Your task to perform on an android device: uninstall "Contacts" Image 0: 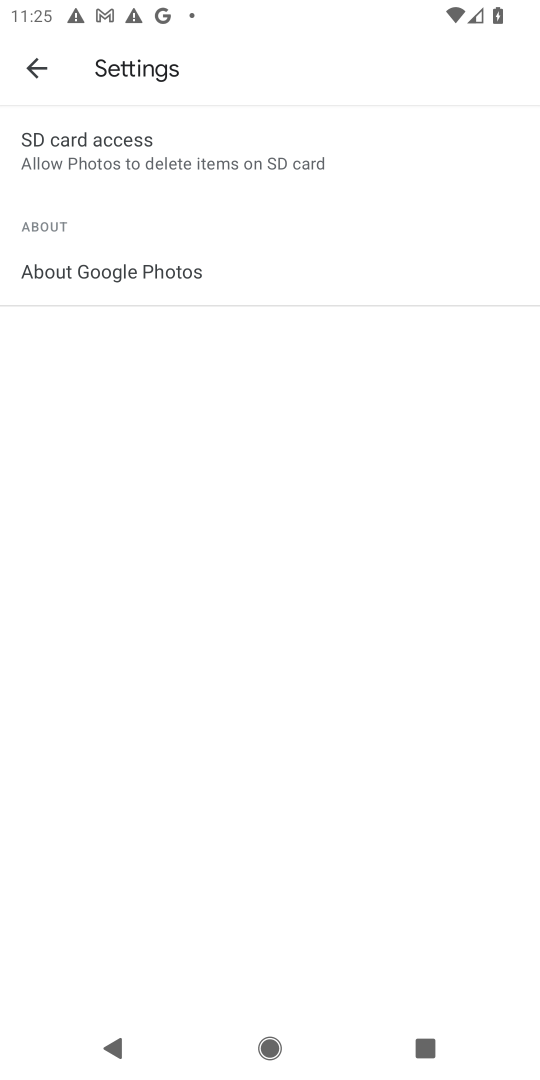
Step 0: press home button
Your task to perform on an android device: uninstall "Contacts" Image 1: 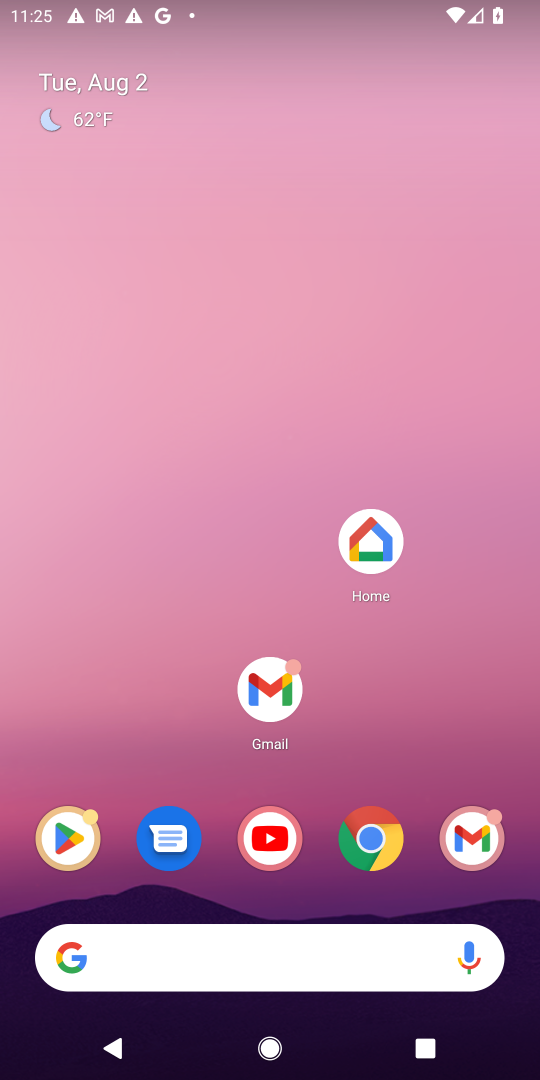
Step 1: drag from (424, 747) to (438, 107)
Your task to perform on an android device: uninstall "Contacts" Image 2: 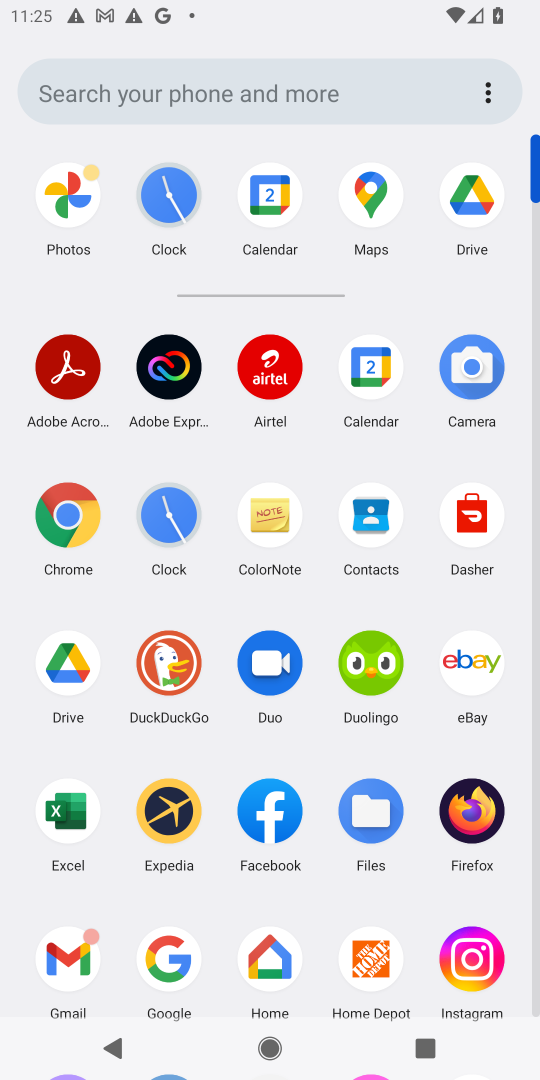
Step 2: drag from (424, 900) to (408, 634)
Your task to perform on an android device: uninstall "Contacts" Image 3: 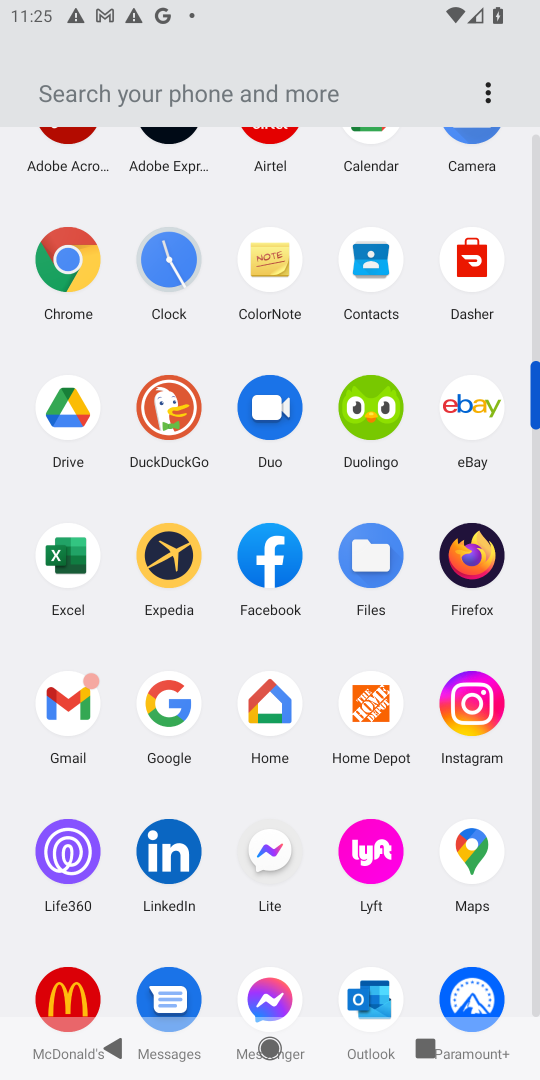
Step 3: drag from (409, 931) to (421, 655)
Your task to perform on an android device: uninstall "Contacts" Image 4: 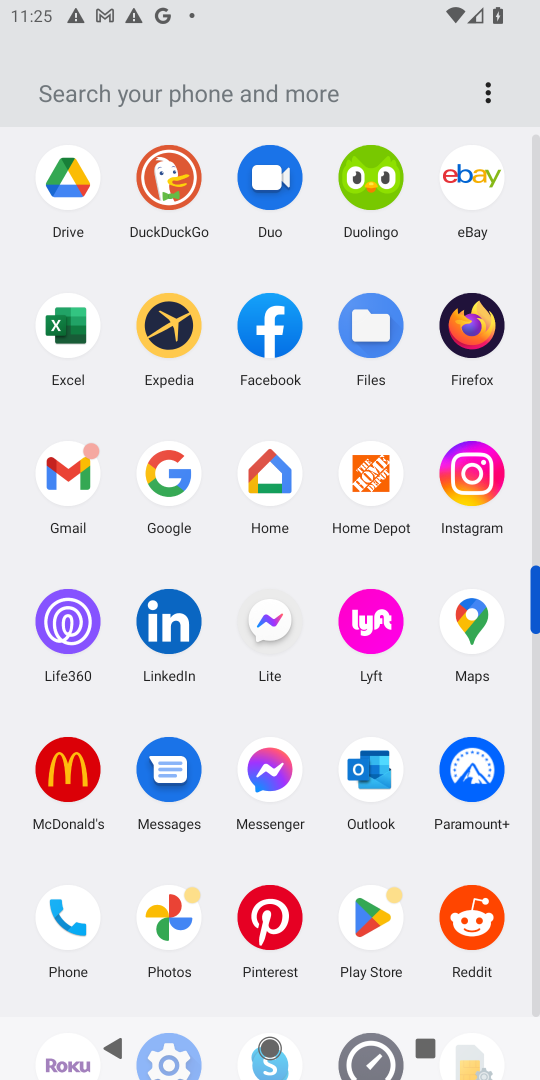
Step 4: click (367, 930)
Your task to perform on an android device: uninstall "Contacts" Image 5: 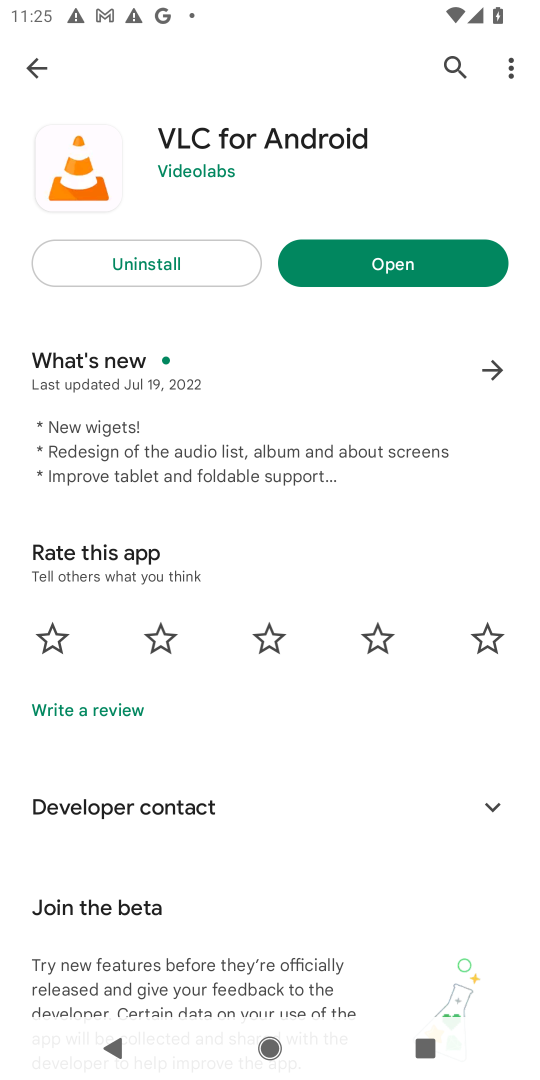
Step 5: click (451, 64)
Your task to perform on an android device: uninstall "Contacts" Image 6: 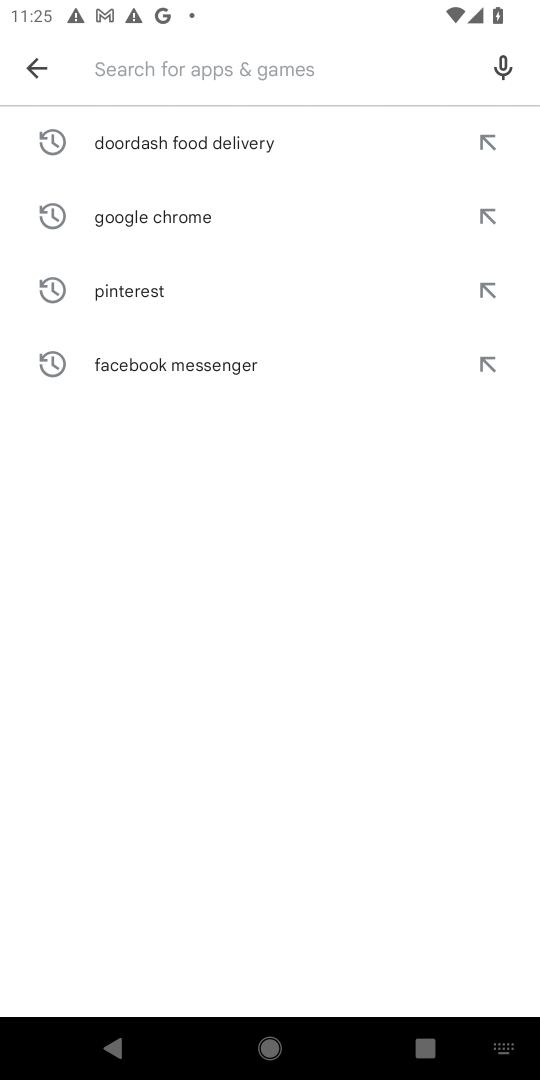
Step 6: click (360, 72)
Your task to perform on an android device: uninstall "Contacts" Image 7: 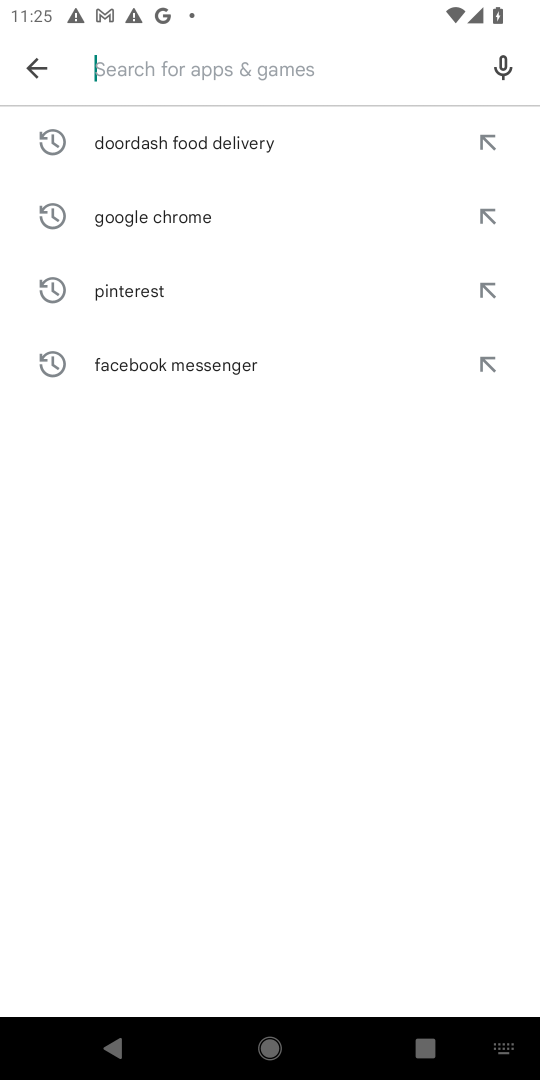
Step 7: type "contacts"
Your task to perform on an android device: uninstall "Contacts" Image 8: 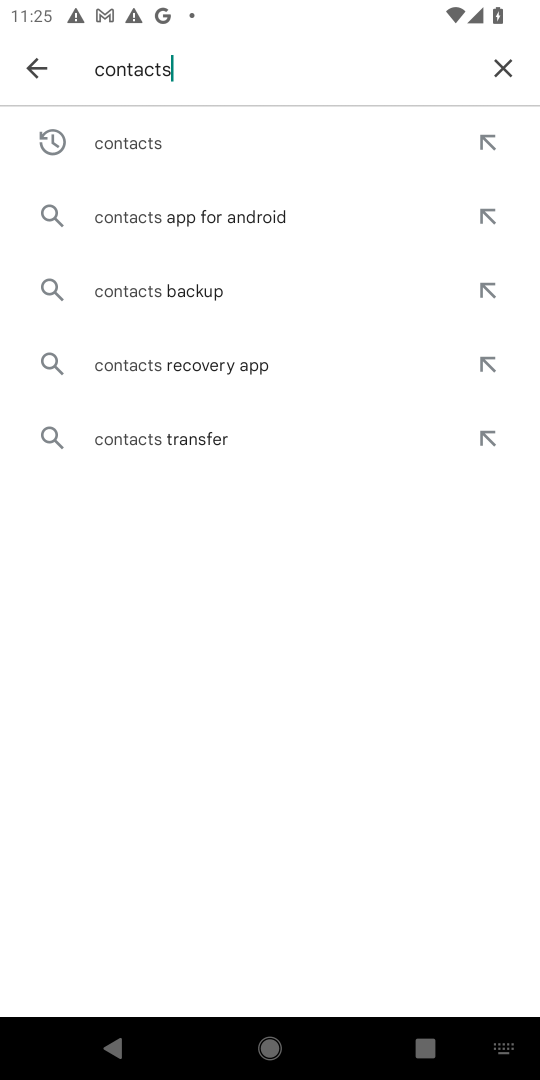
Step 8: click (179, 145)
Your task to perform on an android device: uninstall "Contacts" Image 9: 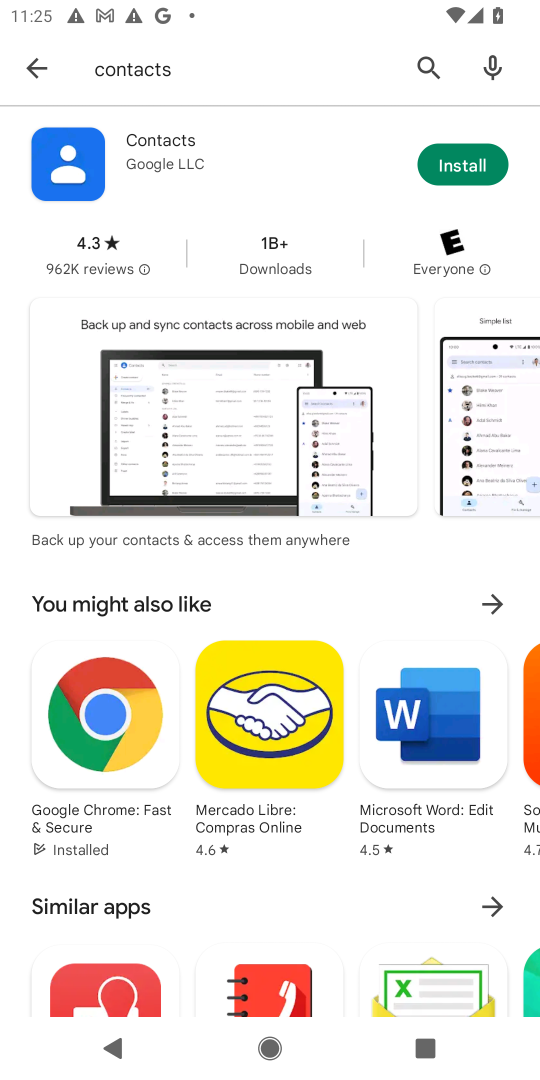
Step 9: task complete